Your task to perform on an android device: open a new tab in the chrome app Image 0: 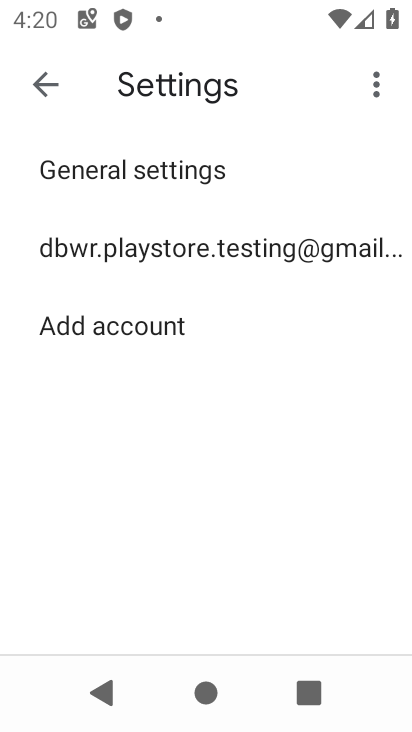
Step 0: press home button
Your task to perform on an android device: open a new tab in the chrome app Image 1: 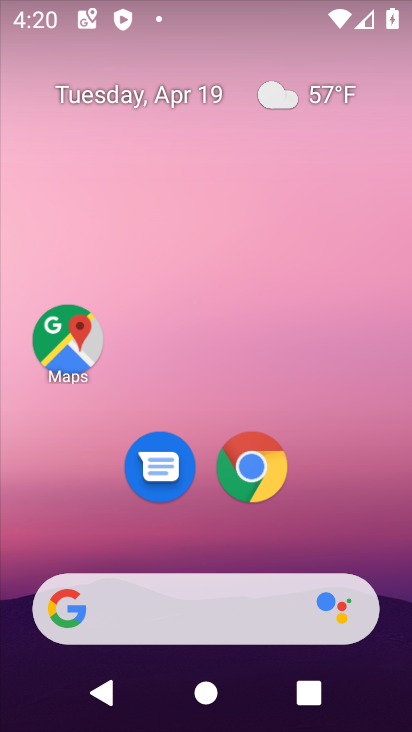
Step 1: click (262, 482)
Your task to perform on an android device: open a new tab in the chrome app Image 2: 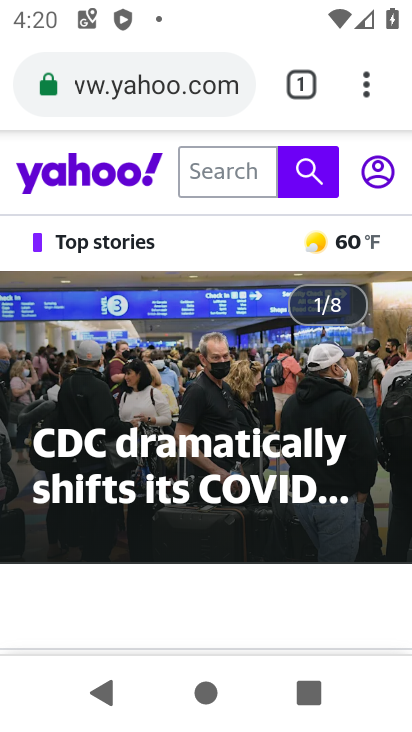
Step 2: drag from (306, 95) to (327, 229)
Your task to perform on an android device: open a new tab in the chrome app Image 3: 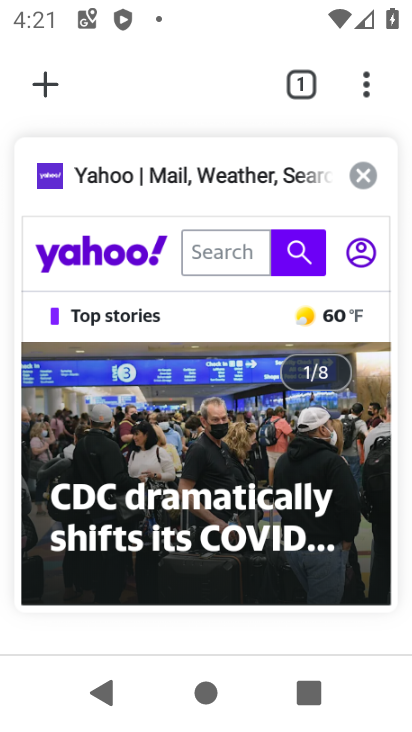
Step 3: click (49, 78)
Your task to perform on an android device: open a new tab in the chrome app Image 4: 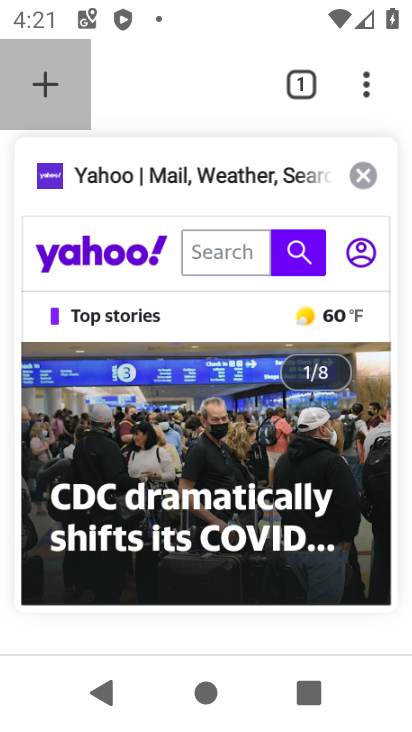
Step 4: click (53, 95)
Your task to perform on an android device: open a new tab in the chrome app Image 5: 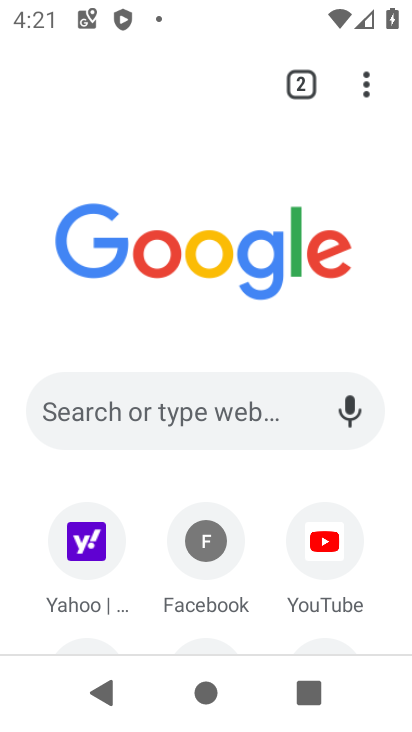
Step 5: task complete